Your task to perform on an android device: toggle wifi Image 0: 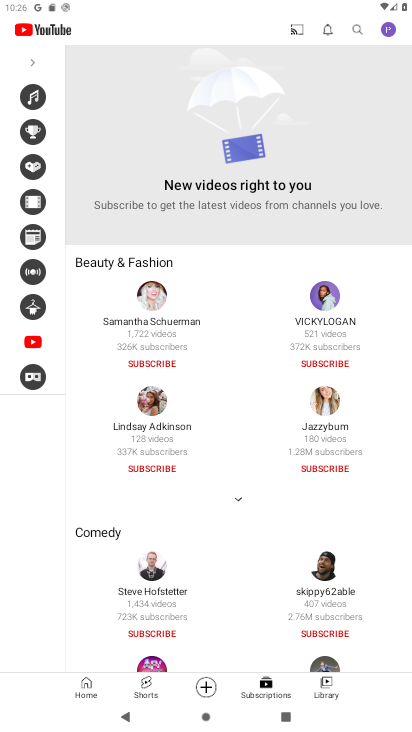
Step 0: click (150, 12)
Your task to perform on an android device: toggle wifi Image 1: 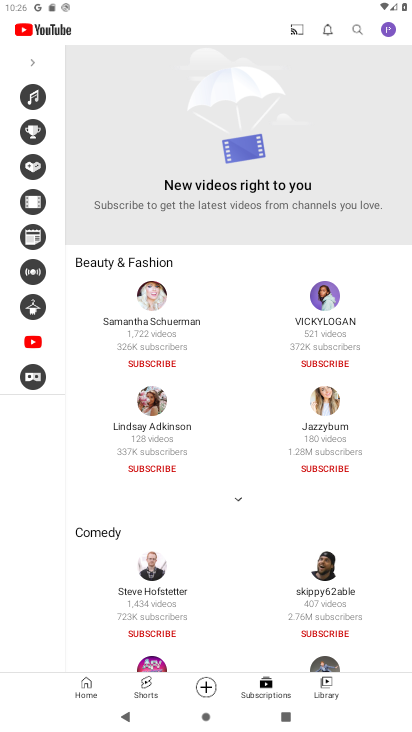
Step 1: drag from (150, 12) to (142, 576)
Your task to perform on an android device: toggle wifi Image 2: 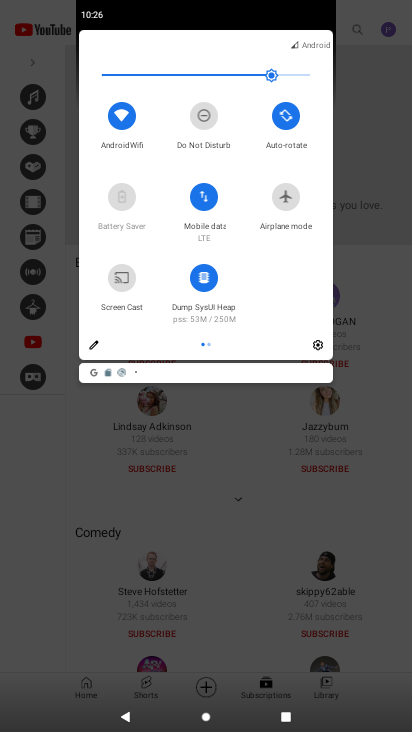
Step 2: click (118, 120)
Your task to perform on an android device: toggle wifi Image 3: 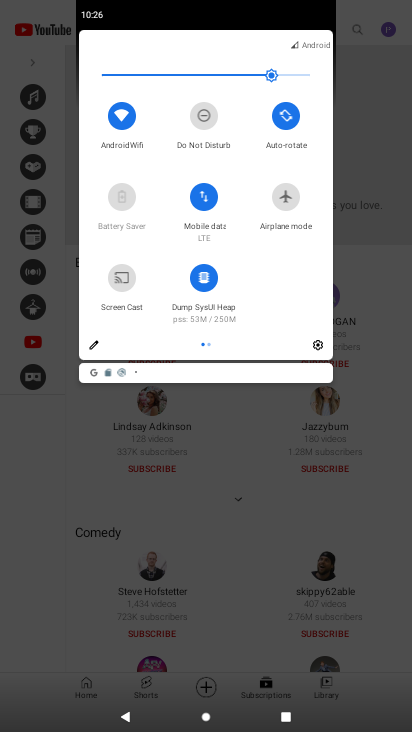
Step 3: click (118, 120)
Your task to perform on an android device: toggle wifi Image 4: 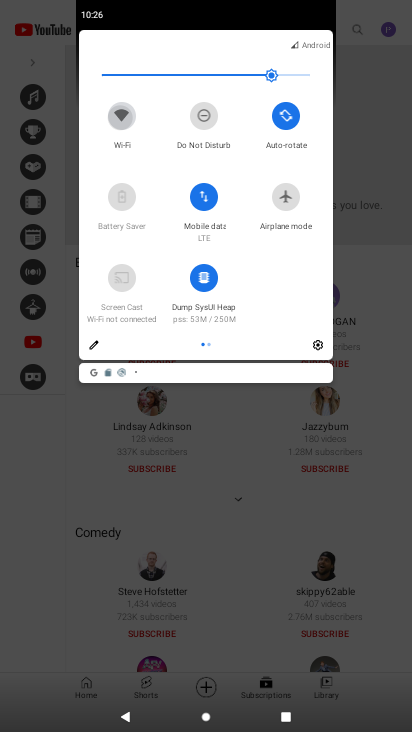
Step 4: click (118, 120)
Your task to perform on an android device: toggle wifi Image 5: 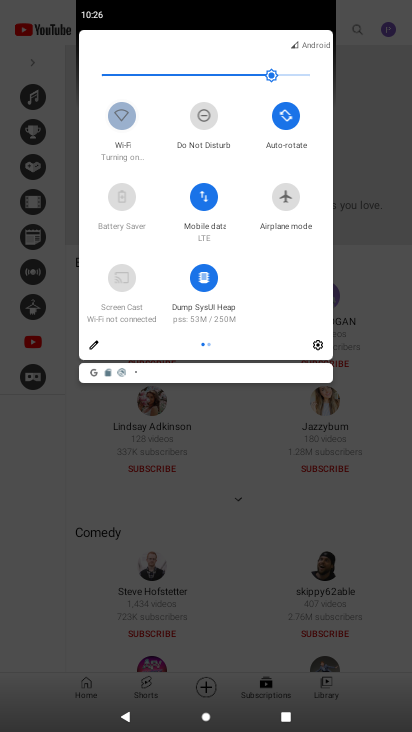
Step 5: click (118, 120)
Your task to perform on an android device: toggle wifi Image 6: 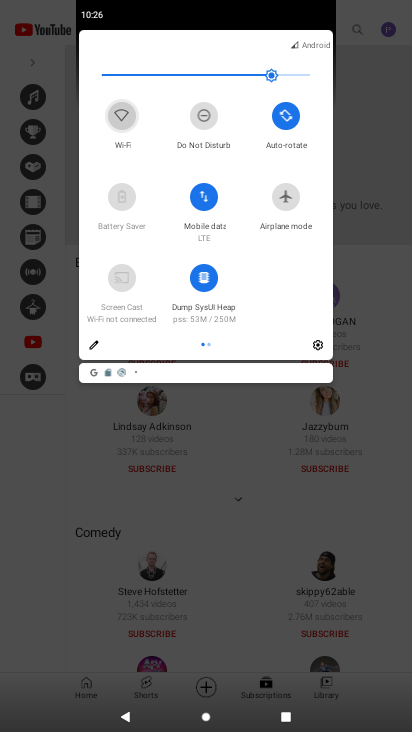
Step 6: click (118, 120)
Your task to perform on an android device: toggle wifi Image 7: 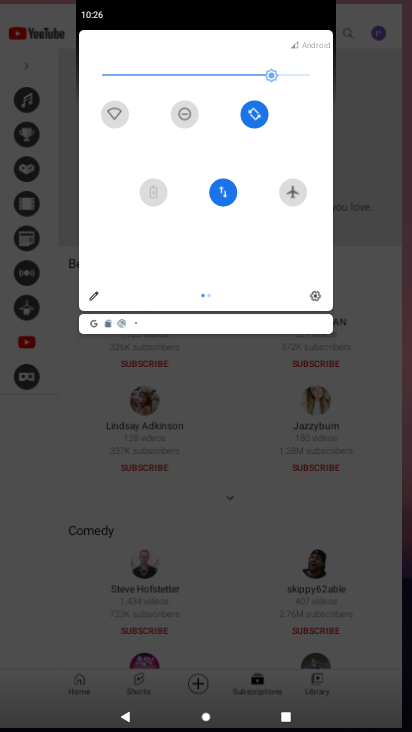
Step 7: click (118, 120)
Your task to perform on an android device: toggle wifi Image 8: 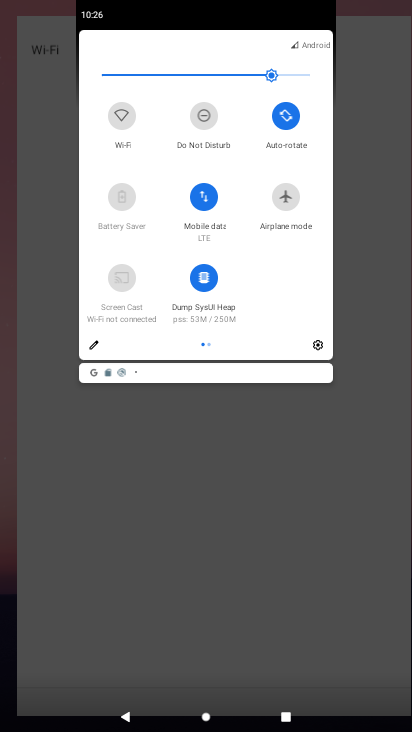
Step 8: click (118, 120)
Your task to perform on an android device: toggle wifi Image 9: 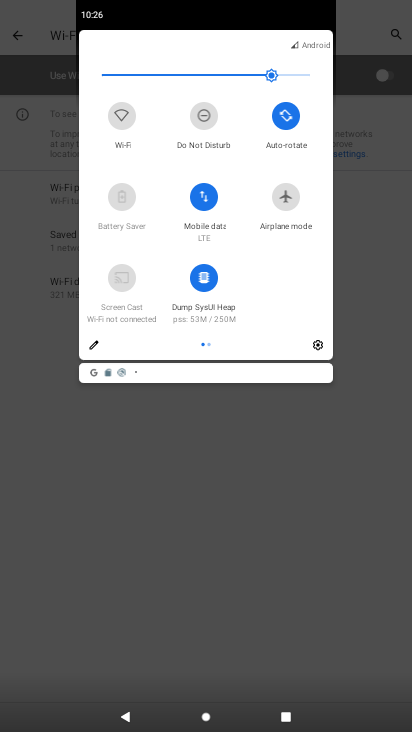
Step 9: click (129, 116)
Your task to perform on an android device: toggle wifi Image 10: 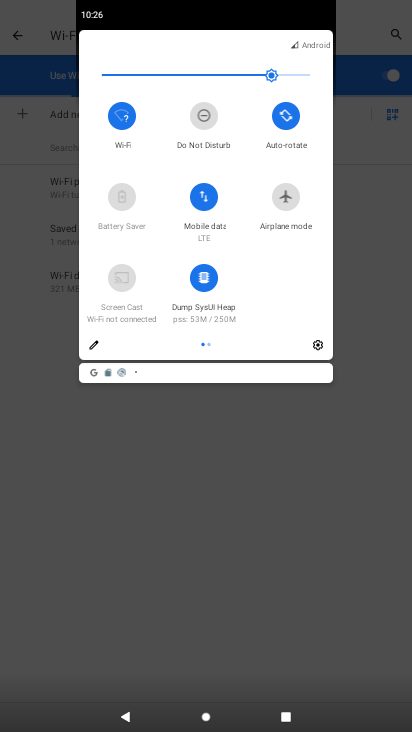
Step 10: task complete